Your task to perform on an android device: Go to Android settings Image 0: 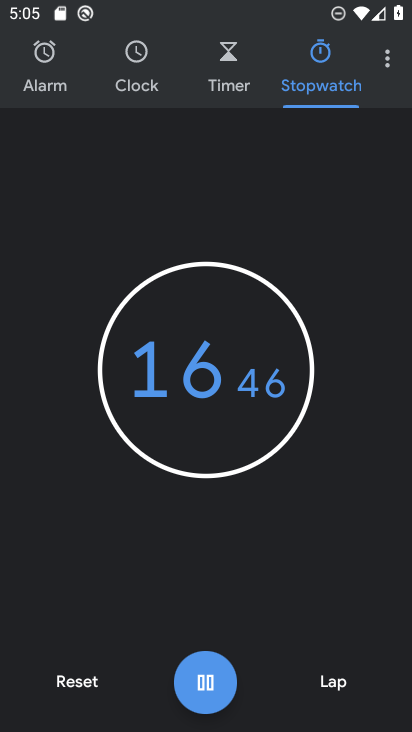
Step 0: press home button
Your task to perform on an android device: Go to Android settings Image 1: 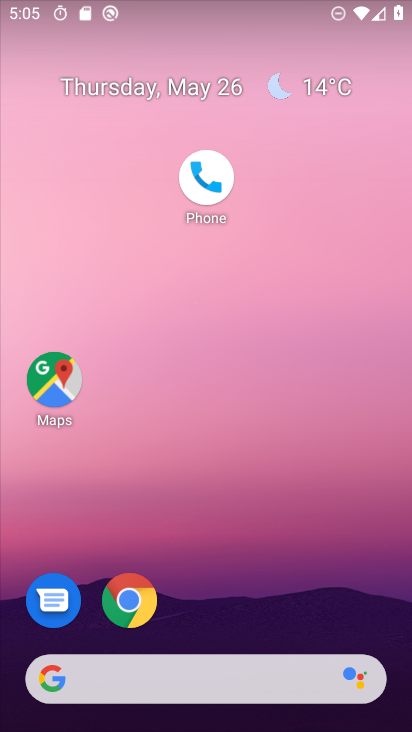
Step 1: drag from (256, 623) to (268, 85)
Your task to perform on an android device: Go to Android settings Image 2: 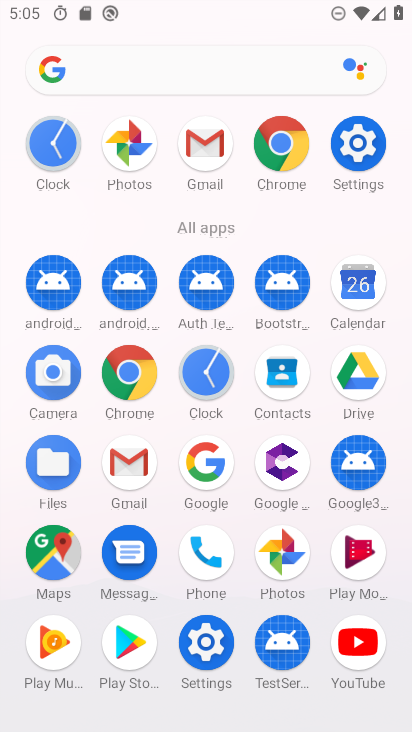
Step 2: click (364, 107)
Your task to perform on an android device: Go to Android settings Image 3: 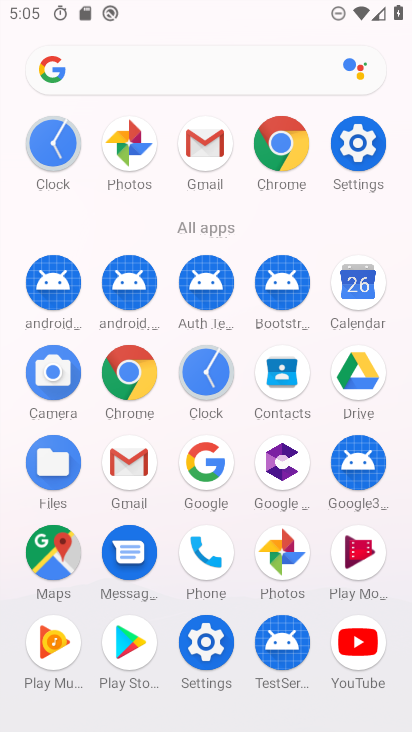
Step 3: click (363, 119)
Your task to perform on an android device: Go to Android settings Image 4: 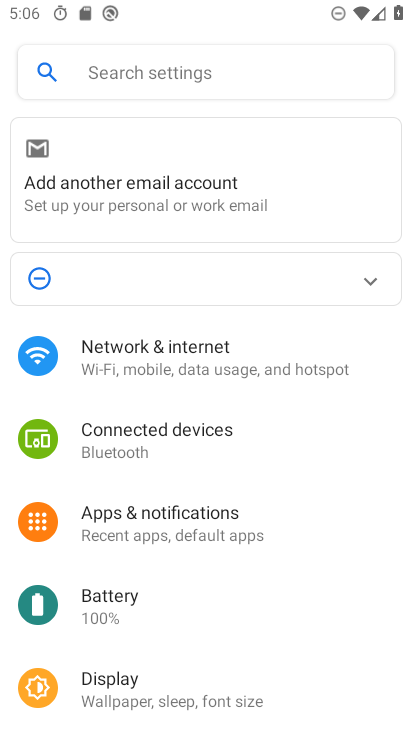
Step 4: task complete